Your task to perform on an android device: Search for vegetarian restaurants on Maps Image 0: 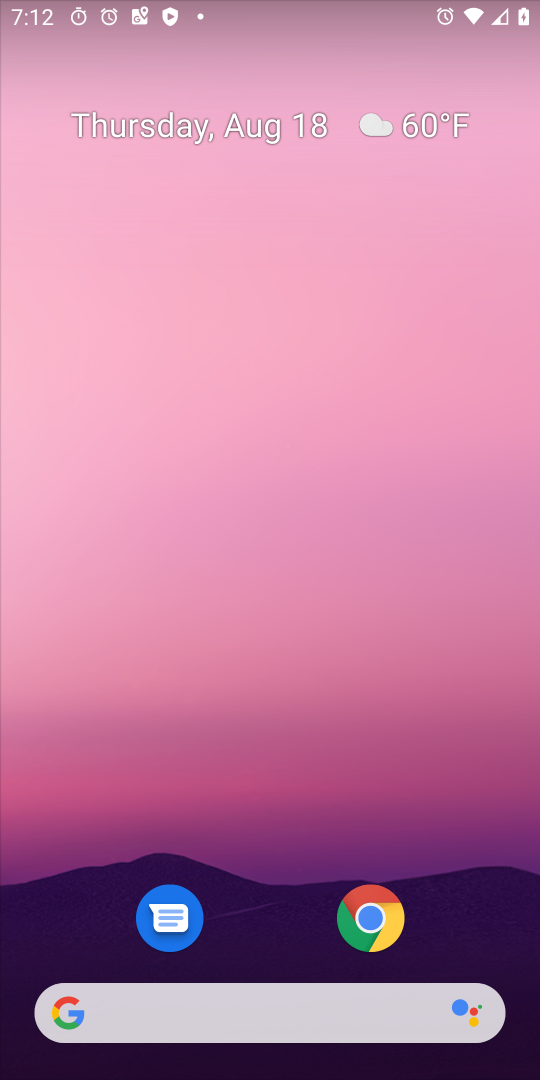
Step 0: press home button
Your task to perform on an android device: Search for vegetarian restaurants on Maps Image 1: 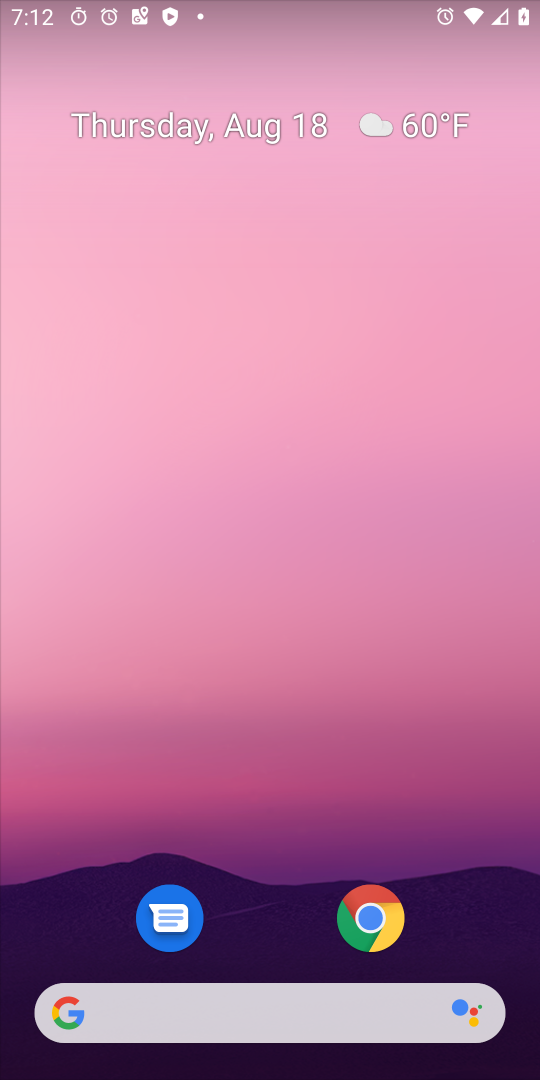
Step 1: press home button
Your task to perform on an android device: Search for vegetarian restaurants on Maps Image 2: 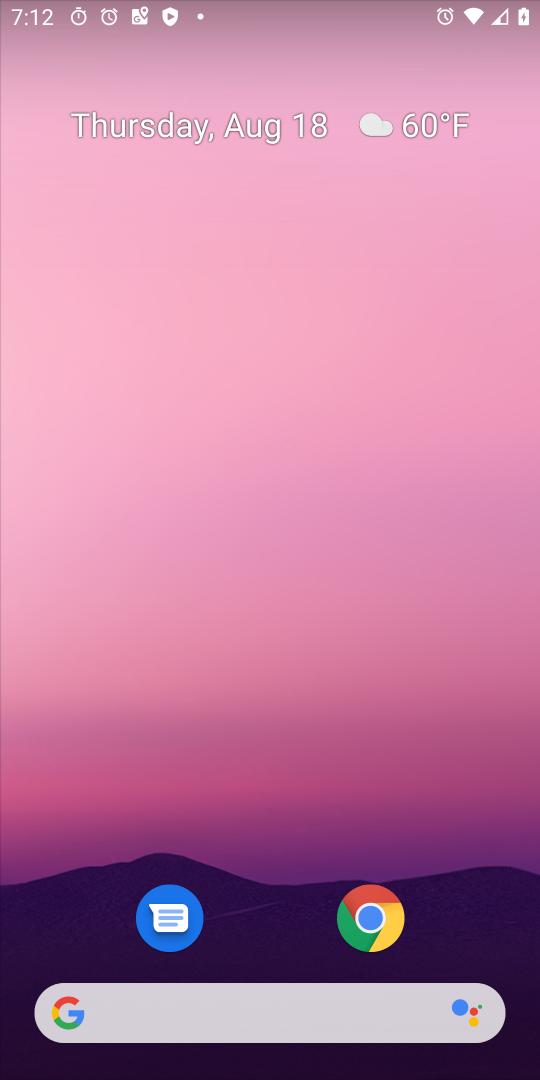
Step 2: drag from (308, 905) to (323, 71)
Your task to perform on an android device: Search for vegetarian restaurants on Maps Image 3: 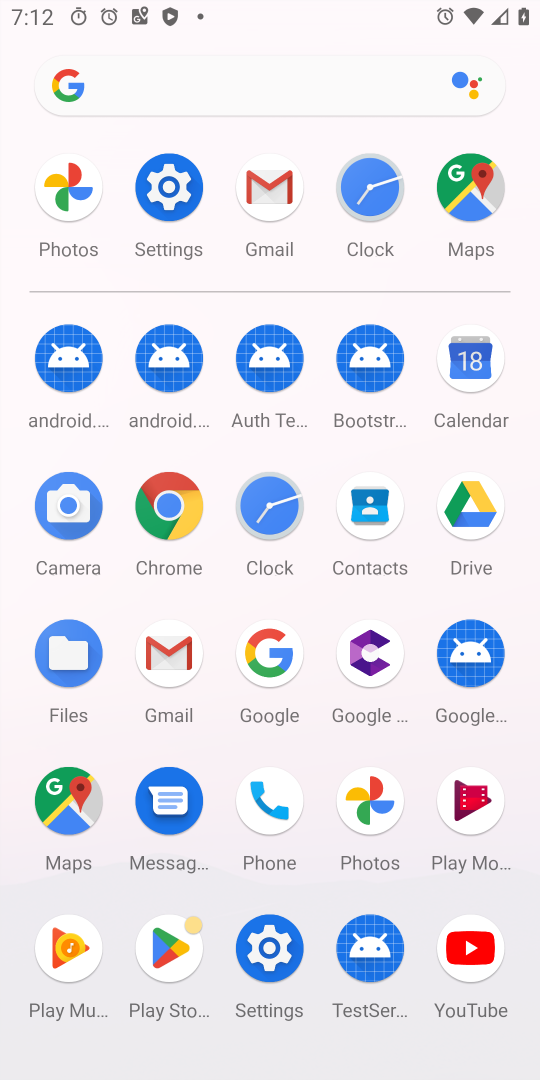
Step 3: click (461, 182)
Your task to perform on an android device: Search for vegetarian restaurants on Maps Image 4: 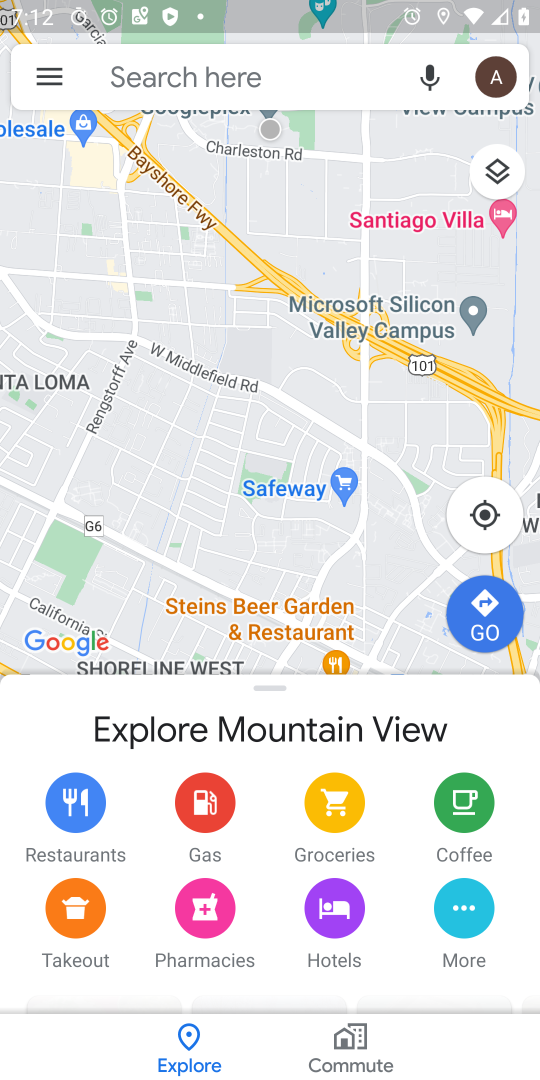
Step 4: click (224, 76)
Your task to perform on an android device: Search for vegetarian restaurants on Maps Image 5: 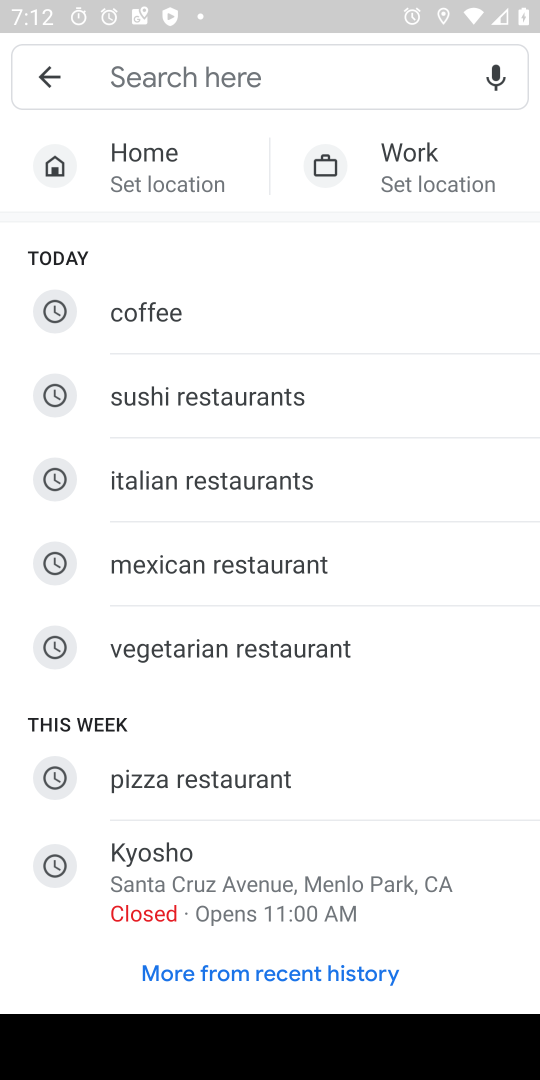
Step 5: click (181, 651)
Your task to perform on an android device: Search for vegetarian restaurants on Maps Image 6: 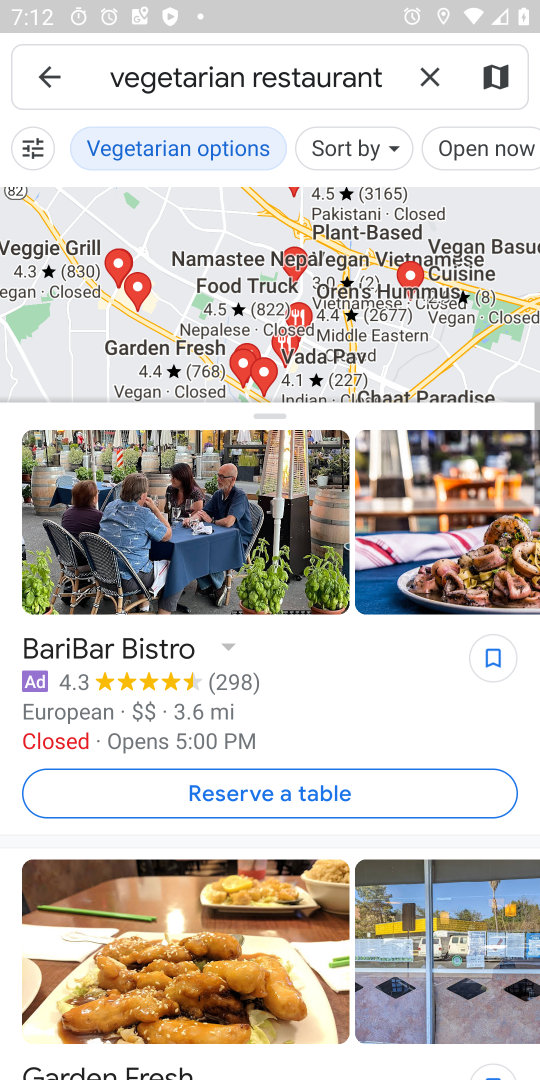
Step 6: task complete